Your task to perform on an android device: Go to wifi settings Image 0: 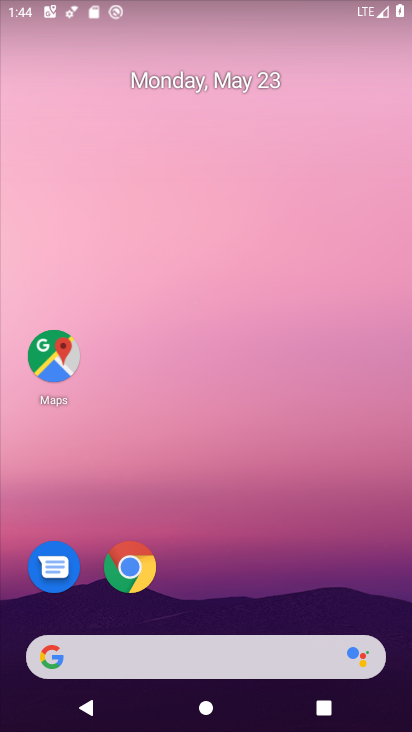
Step 0: drag from (263, 581) to (267, 255)
Your task to perform on an android device: Go to wifi settings Image 1: 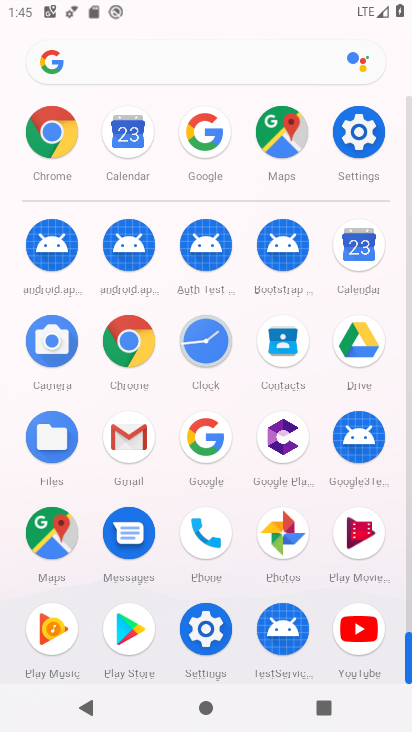
Step 1: click (368, 153)
Your task to perform on an android device: Go to wifi settings Image 2: 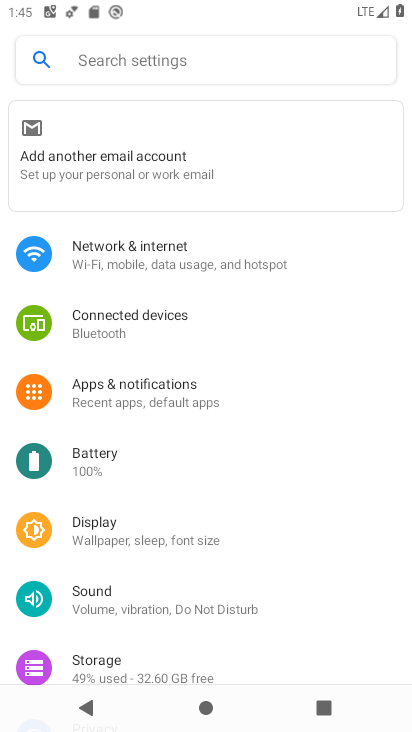
Step 2: click (161, 272)
Your task to perform on an android device: Go to wifi settings Image 3: 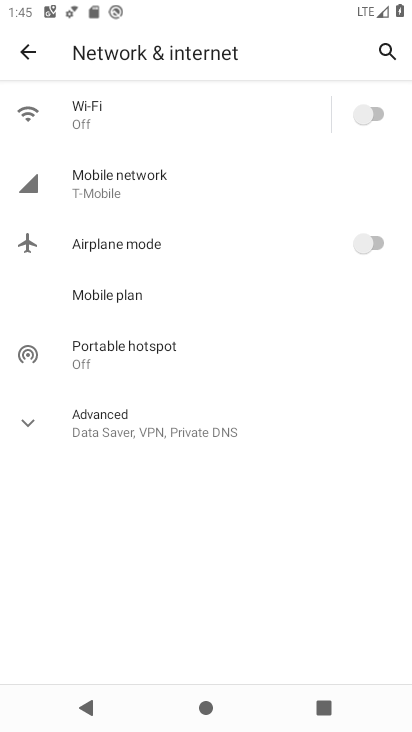
Step 3: click (144, 136)
Your task to perform on an android device: Go to wifi settings Image 4: 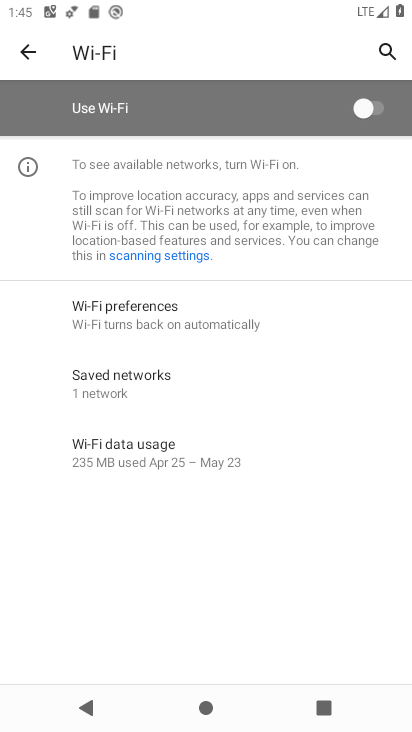
Step 4: task complete